Your task to perform on an android device: See recent photos Image 0: 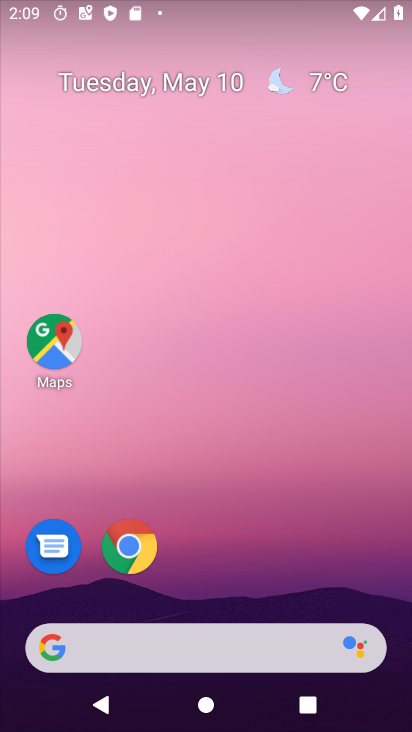
Step 0: drag from (275, 581) to (241, 200)
Your task to perform on an android device: See recent photos Image 1: 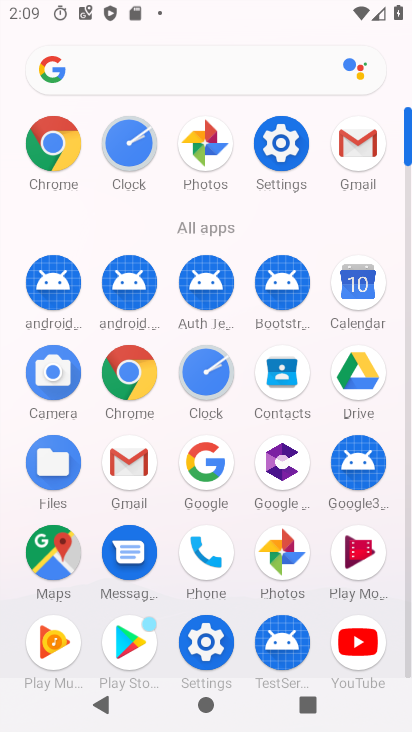
Step 1: click (189, 149)
Your task to perform on an android device: See recent photos Image 2: 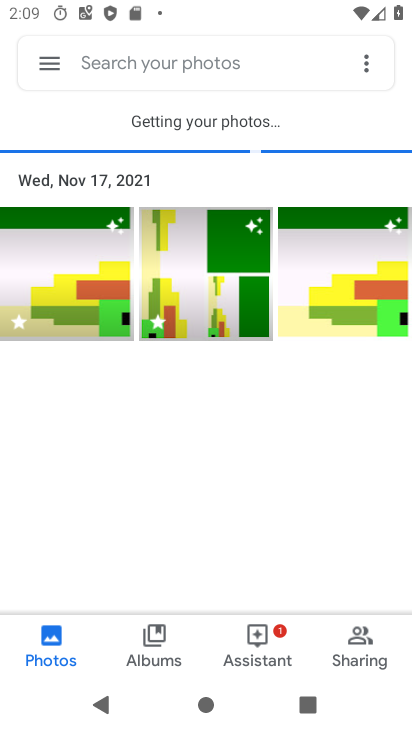
Step 2: click (102, 288)
Your task to perform on an android device: See recent photos Image 3: 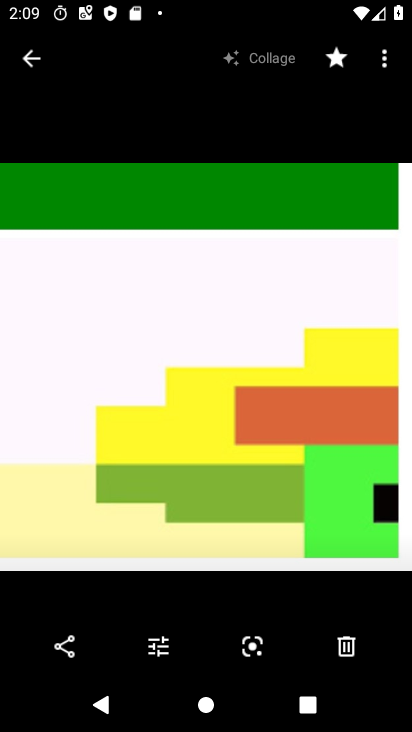
Step 3: task complete